Your task to perform on an android device: Go to wifi settings Image 0: 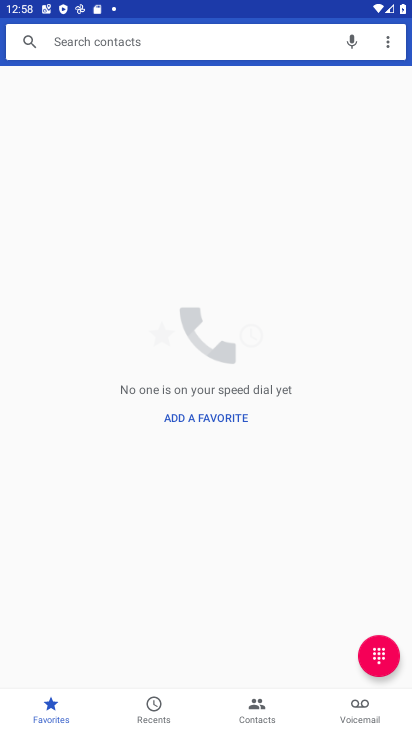
Step 0: press home button
Your task to perform on an android device: Go to wifi settings Image 1: 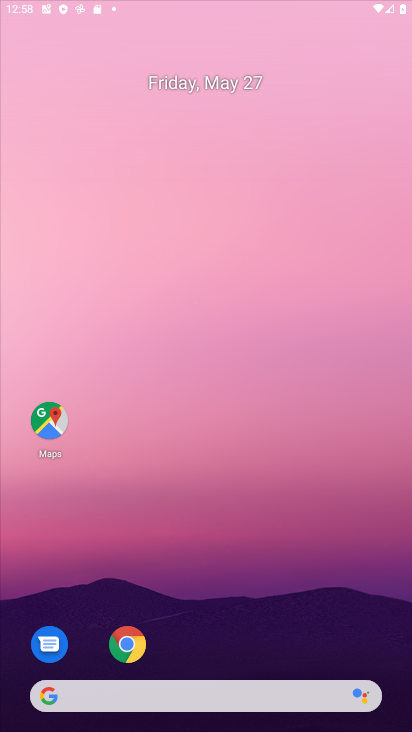
Step 1: drag from (341, 626) to (293, 127)
Your task to perform on an android device: Go to wifi settings Image 2: 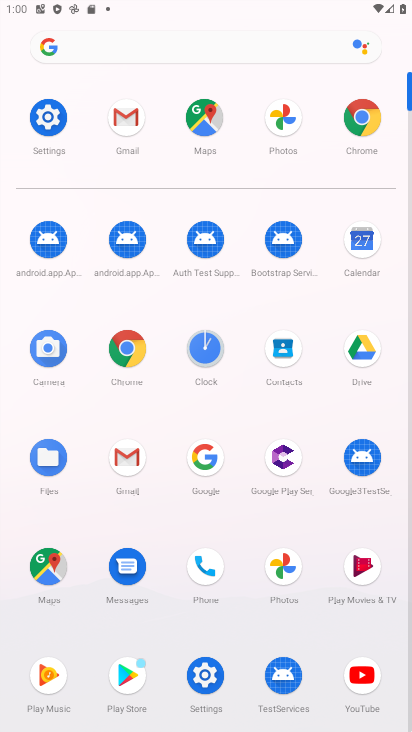
Step 2: click (201, 670)
Your task to perform on an android device: Go to wifi settings Image 3: 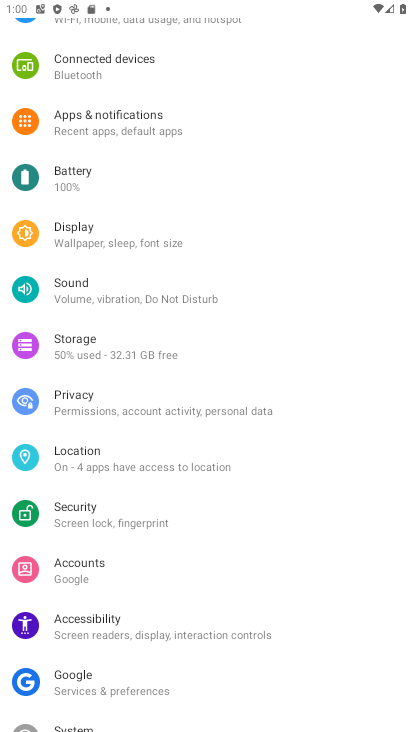
Step 3: drag from (121, 66) to (226, 647)
Your task to perform on an android device: Go to wifi settings Image 4: 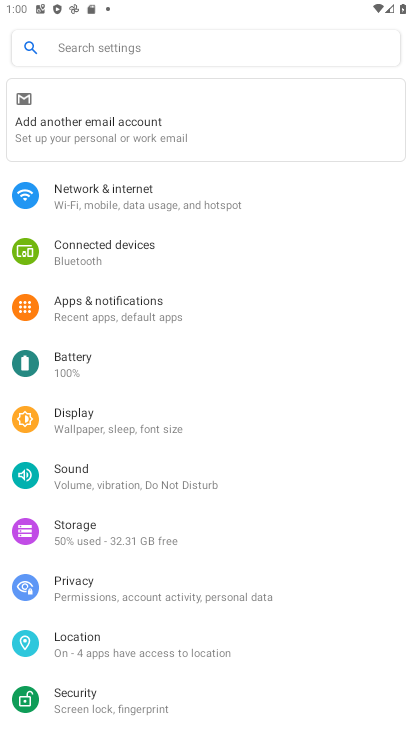
Step 4: click (118, 187)
Your task to perform on an android device: Go to wifi settings Image 5: 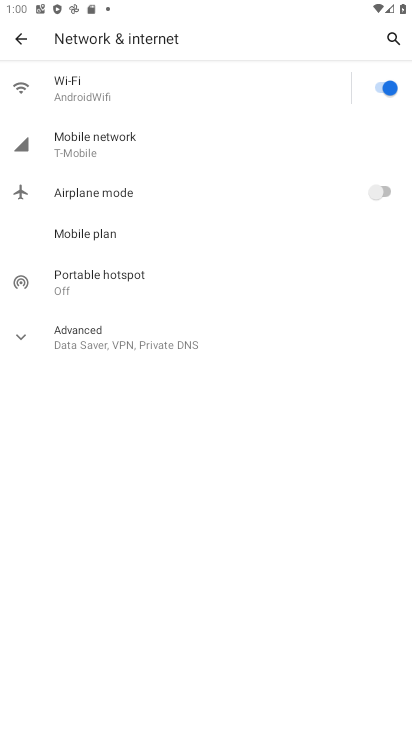
Step 5: click (189, 91)
Your task to perform on an android device: Go to wifi settings Image 6: 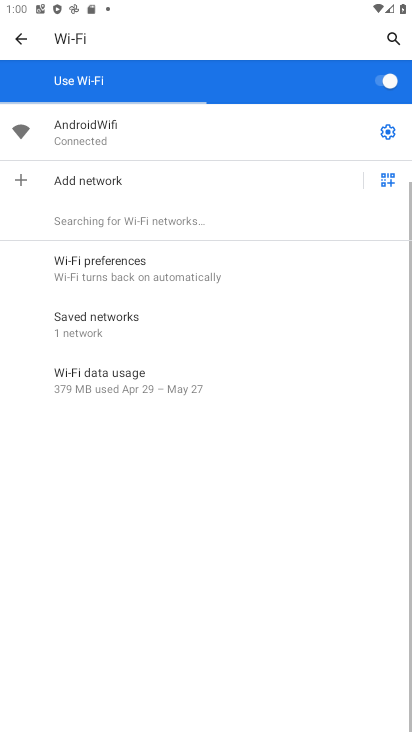
Step 6: task complete